Your task to perform on an android device: turn off notifications in google photos Image 0: 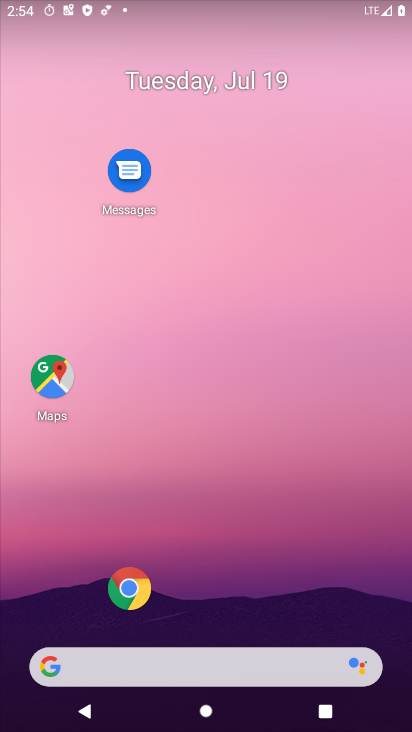
Step 0: drag from (24, 703) to (153, 164)
Your task to perform on an android device: turn off notifications in google photos Image 1: 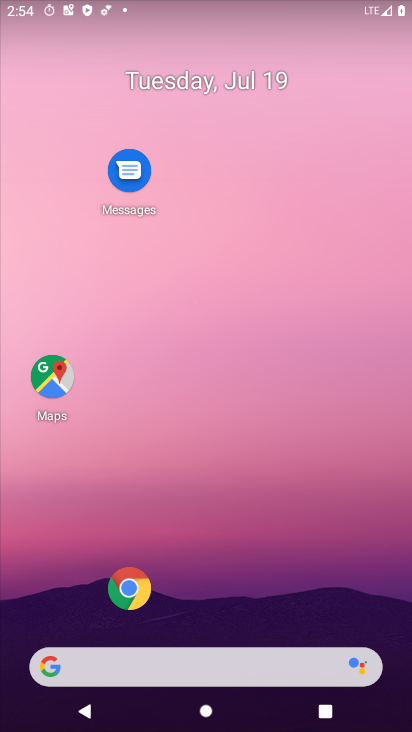
Step 1: drag from (22, 634) to (160, 173)
Your task to perform on an android device: turn off notifications in google photos Image 2: 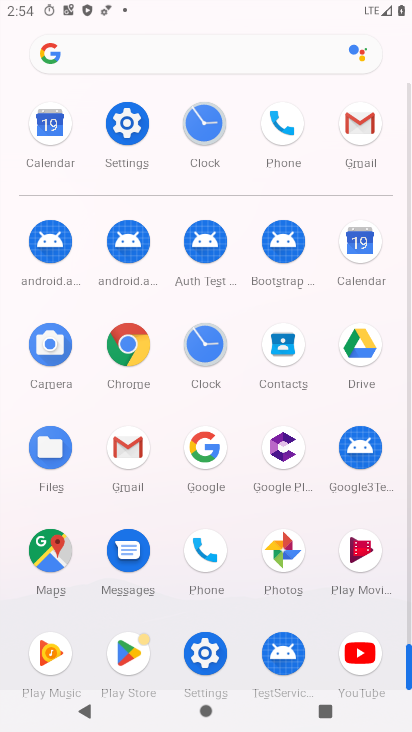
Step 2: click (284, 553)
Your task to perform on an android device: turn off notifications in google photos Image 3: 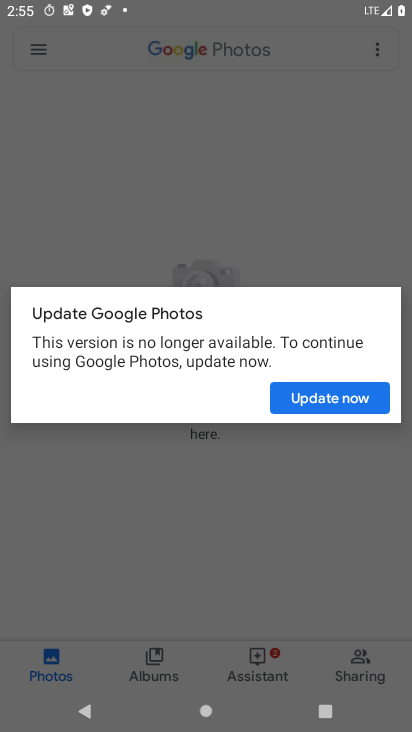
Step 3: click (309, 397)
Your task to perform on an android device: turn off notifications in google photos Image 4: 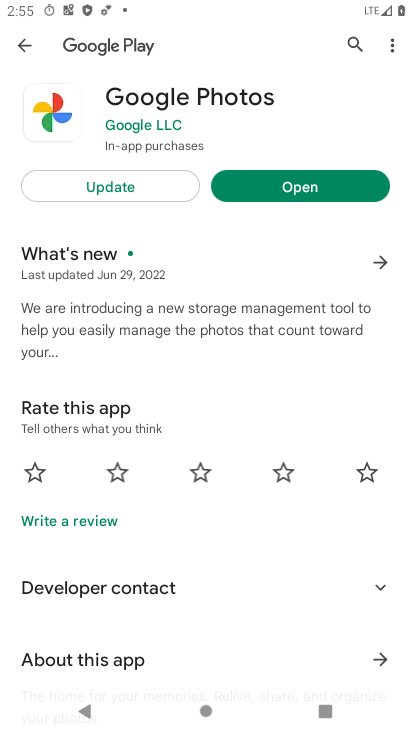
Step 4: click (284, 195)
Your task to perform on an android device: turn off notifications in google photos Image 5: 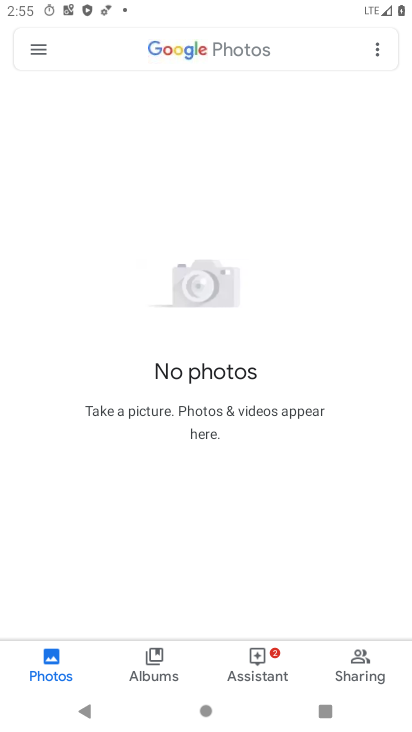
Step 5: click (52, 48)
Your task to perform on an android device: turn off notifications in google photos Image 6: 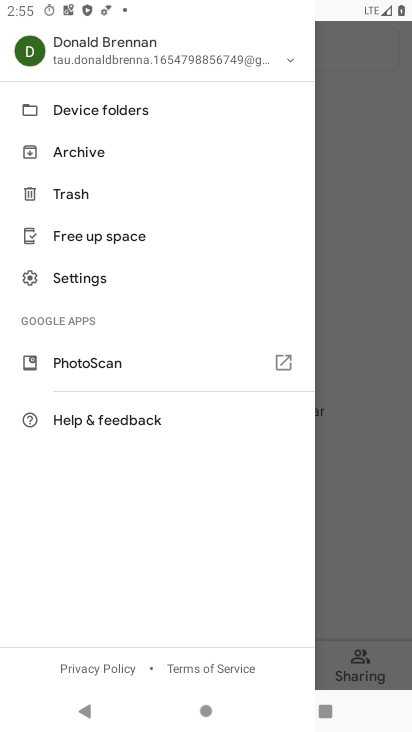
Step 6: click (73, 274)
Your task to perform on an android device: turn off notifications in google photos Image 7: 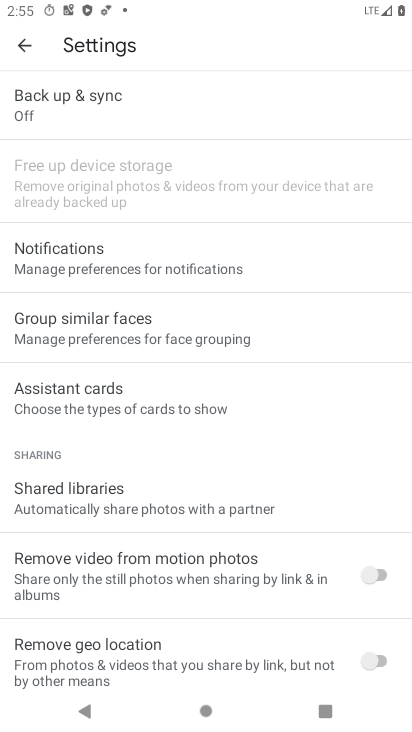
Step 7: click (99, 261)
Your task to perform on an android device: turn off notifications in google photos Image 8: 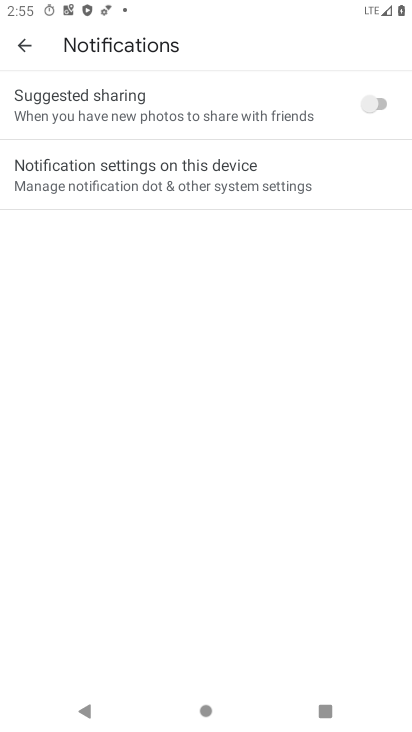
Step 8: click (99, 167)
Your task to perform on an android device: turn off notifications in google photos Image 9: 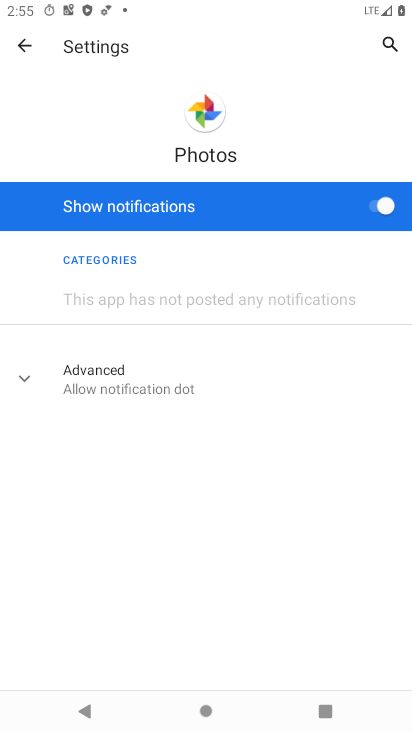
Step 9: click (376, 208)
Your task to perform on an android device: turn off notifications in google photos Image 10: 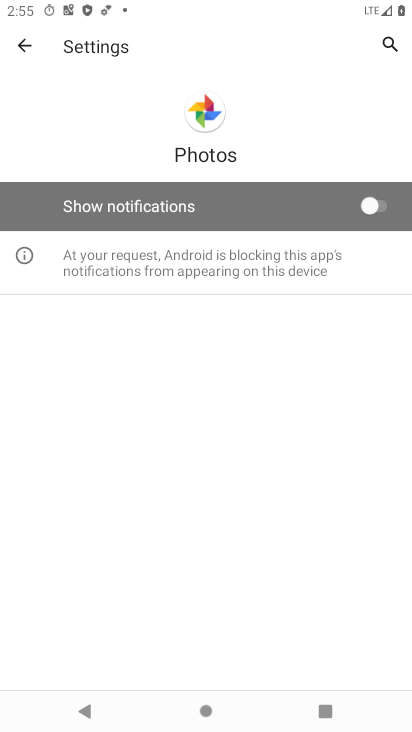
Step 10: task complete